Your task to perform on an android device: turn on showing notifications on the lock screen Image 0: 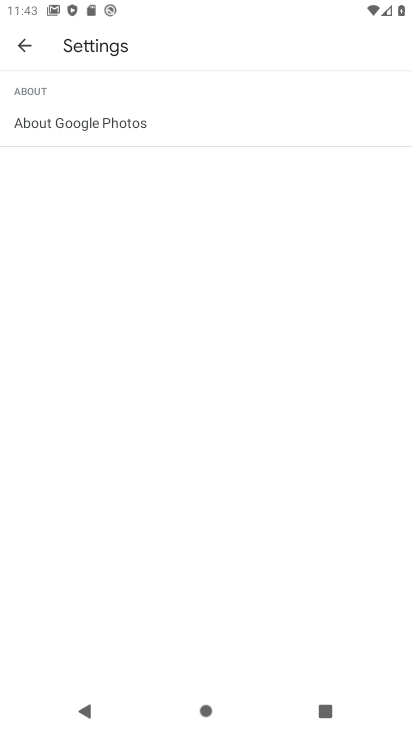
Step 0: press home button
Your task to perform on an android device: turn on showing notifications on the lock screen Image 1: 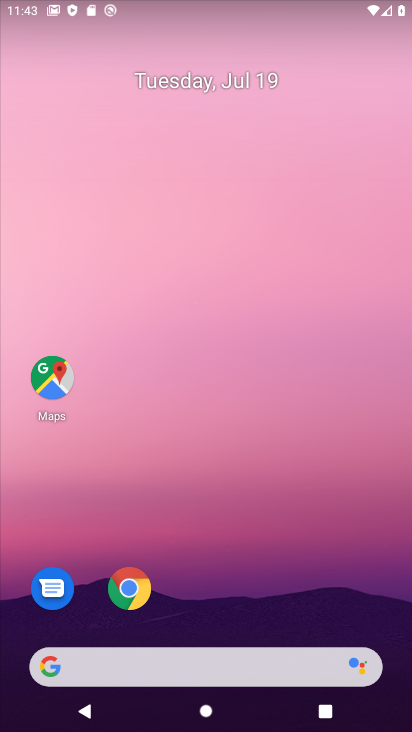
Step 1: drag from (367, 599) to (312, 115)
Your task to perform on an android device: turn on showing notifications on the lock screen Image 2: 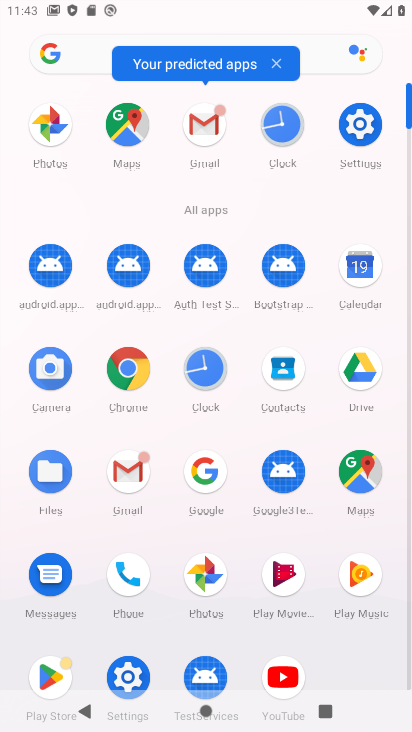
Step 2: click (365, 127)
Your task to perform on an android device: turn on showing notifications on the lock screen Image 3: 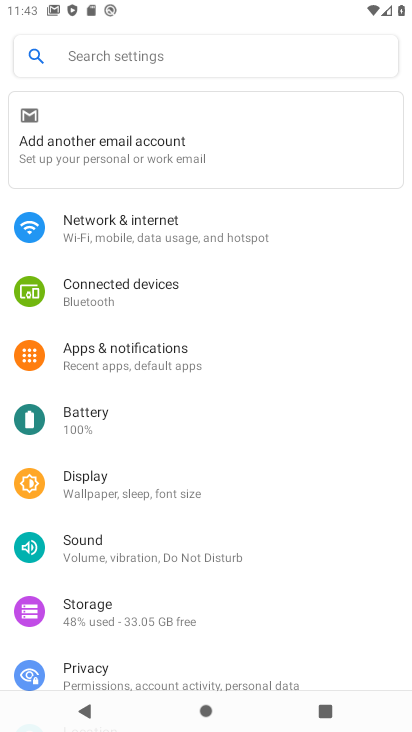
Step 3: click (117, 345)
Your task to perform on an android device: turn on showing notifications on the lock screen Image 4: 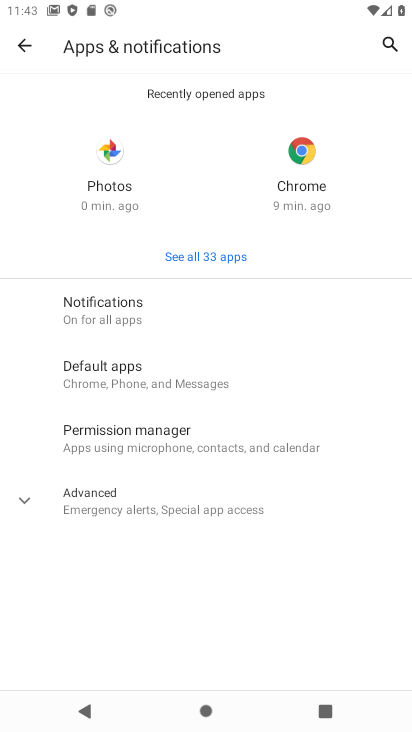
Step 4: click (88, 327)
Your task to perform on an android device: turn on showing notifications on the lock screen Image 5: 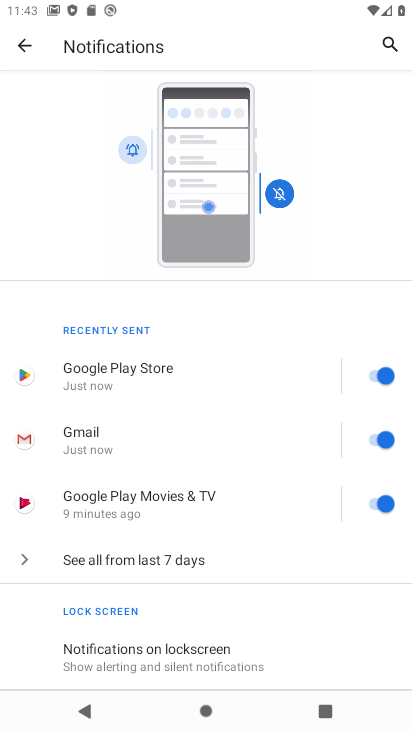
Step 5: click (175, 654)
Your task to perform on an android device: turn on showing notifications on the lock screen Image 6: 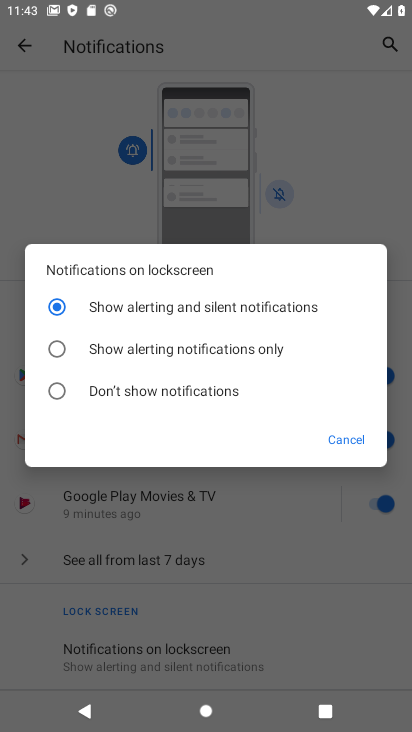
Step 6: task complete